Your task to perform on an android device: turn pop-ups off in chrome Image 0: 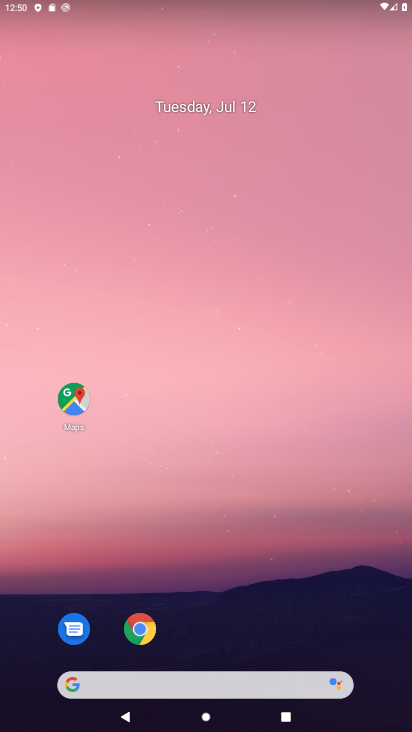
Step 0: click (239, 632)
Your task to perform on an android device: turn pop-ups off in chrome Image 1: 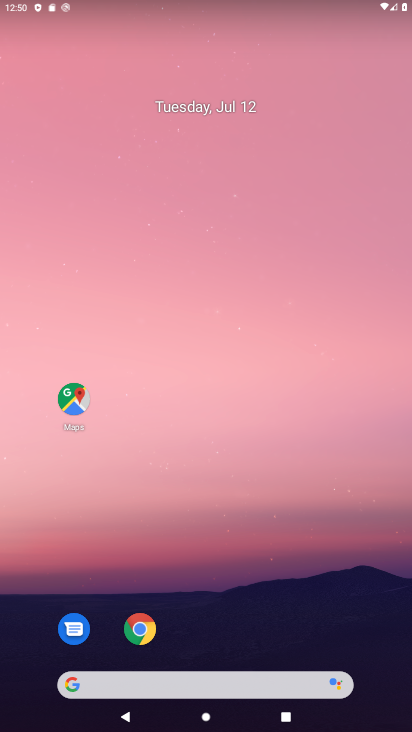
Step 1: click (142, 639)
Your task to perform on an android device: turn pop-ups off in chrome Image 2: 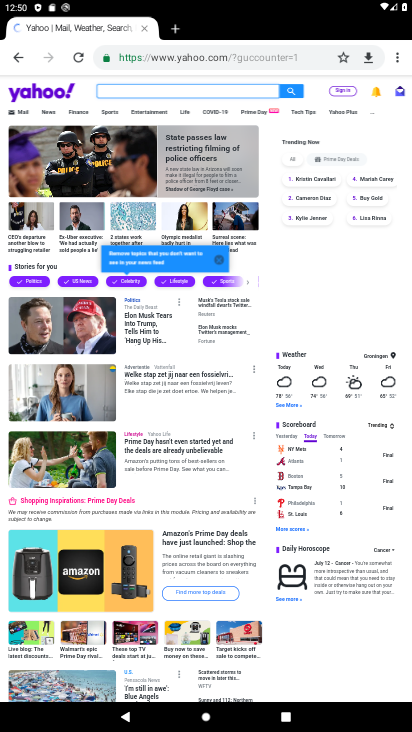
Step 2: click (401, 55)
Your task to perform on an android device: turn pop-ups off in chrome Image 3: 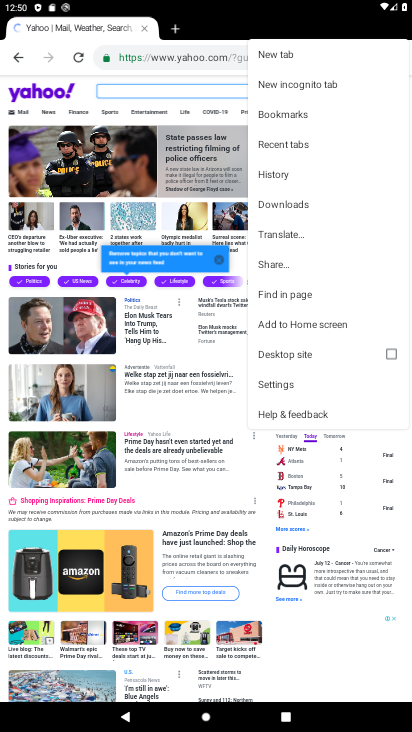
Step 3: click (297, 385)
Your task to perform on an android device: turn pop-ups off in chrome Image 4: 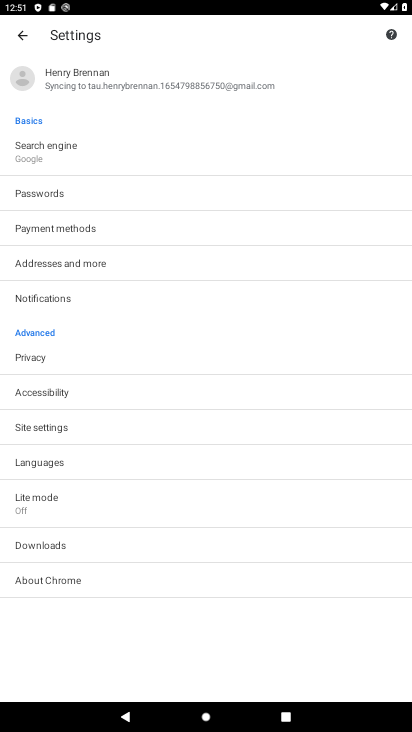
Step 4: click (43, 419)
Your task to perform on an android device: turn pop-ups off in chrome Image 5: 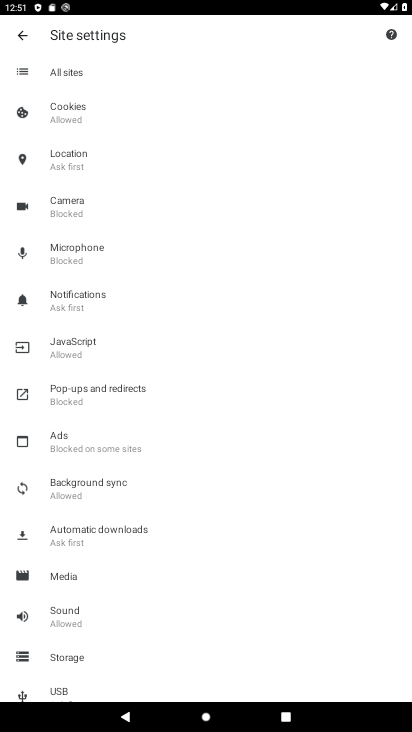
Step 5: click (130, 395)
Your task to perform on an android device: turn pop-ups off in chrome Image 6: 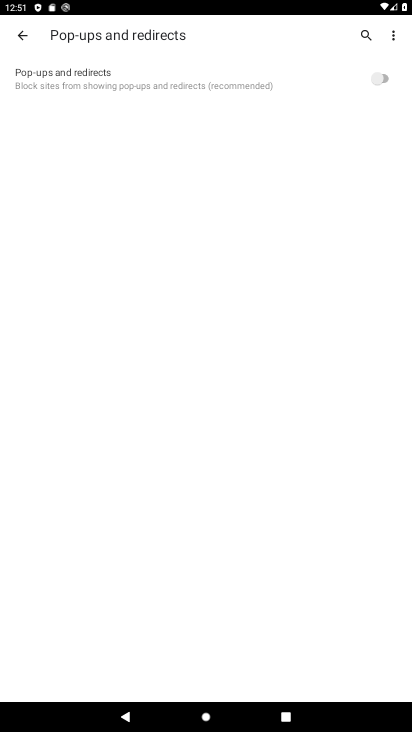
Step 6: task complete